Your task to perform on an android device: empty trash in the gmail app Image 0: 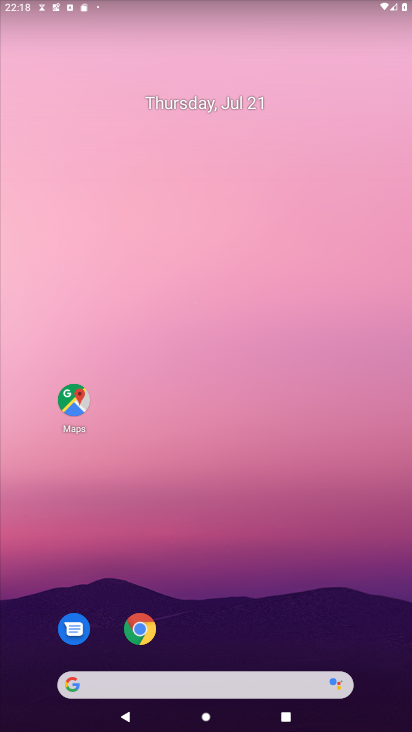
Step 0: drag from (219, 638) to (240, 207)
Your task to perform on an android device: empty trash in the gmail app Image 1: 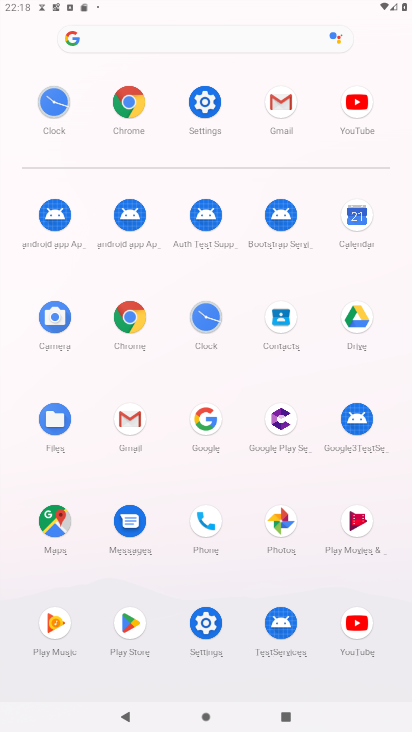
Step 1: click (124, 432)
Your task to perform on an android device: empty trash in the gmail app Image 2: 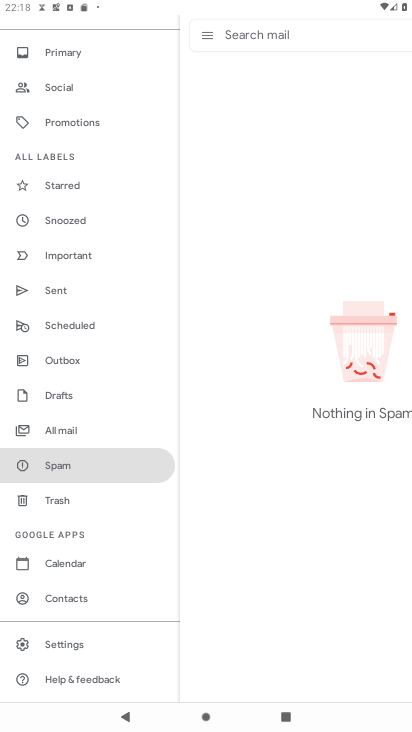
Step 2: click (79, 504)
Your task to perform on an android device: empty trash in the gmail app Image 3: 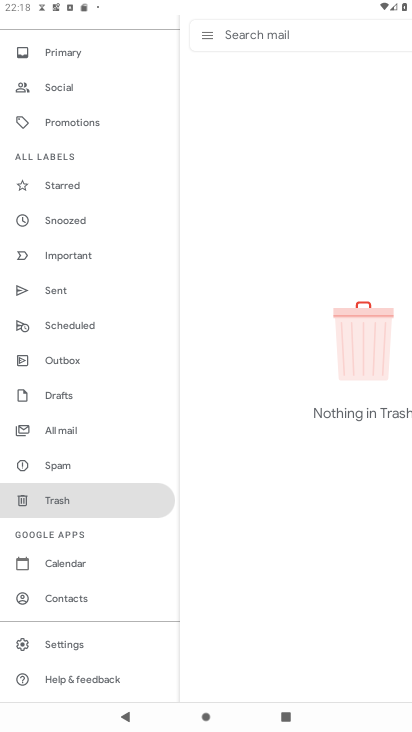
Step 3: task complete